Your task to perform on an android device: Clear all items from cart on target. Image 0: 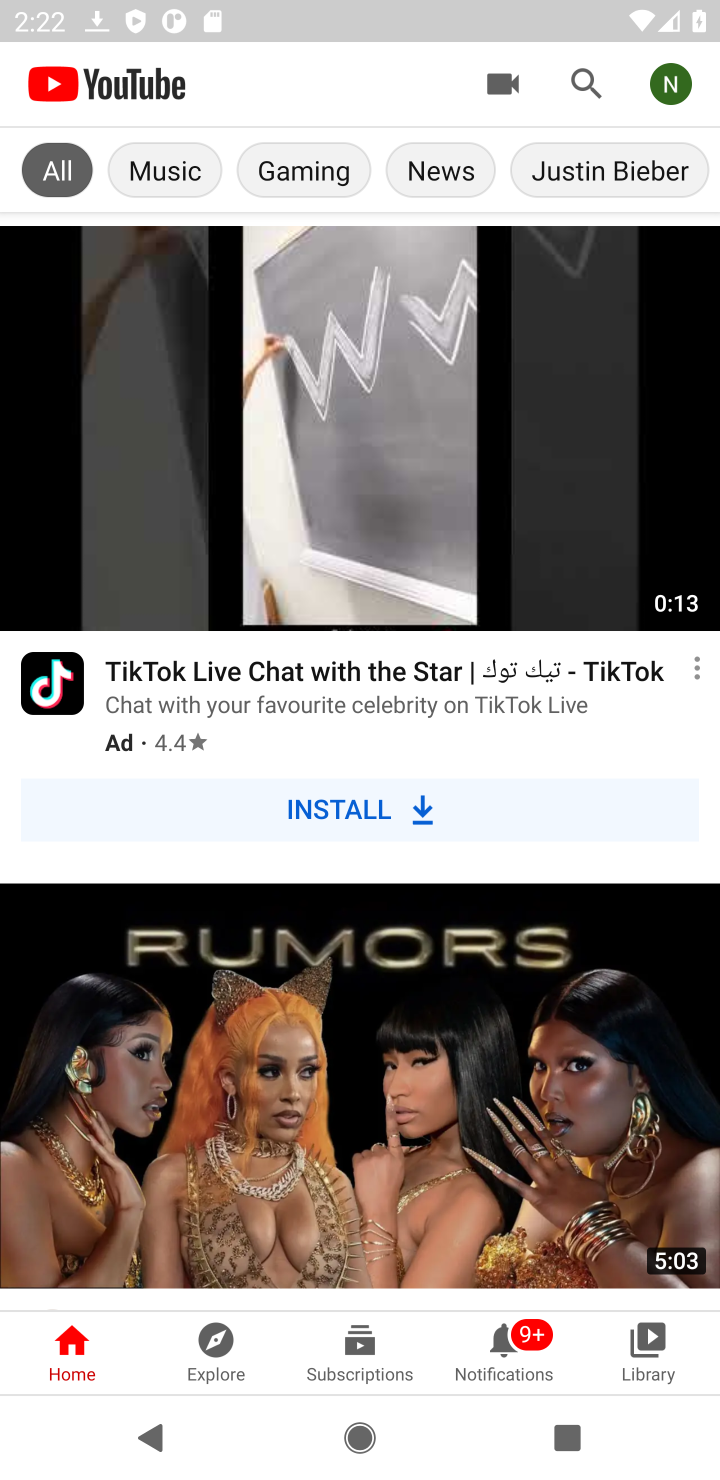
Step 0: press home button
Your task to perform on an android device: Clear all items from cart on target. Image 1: 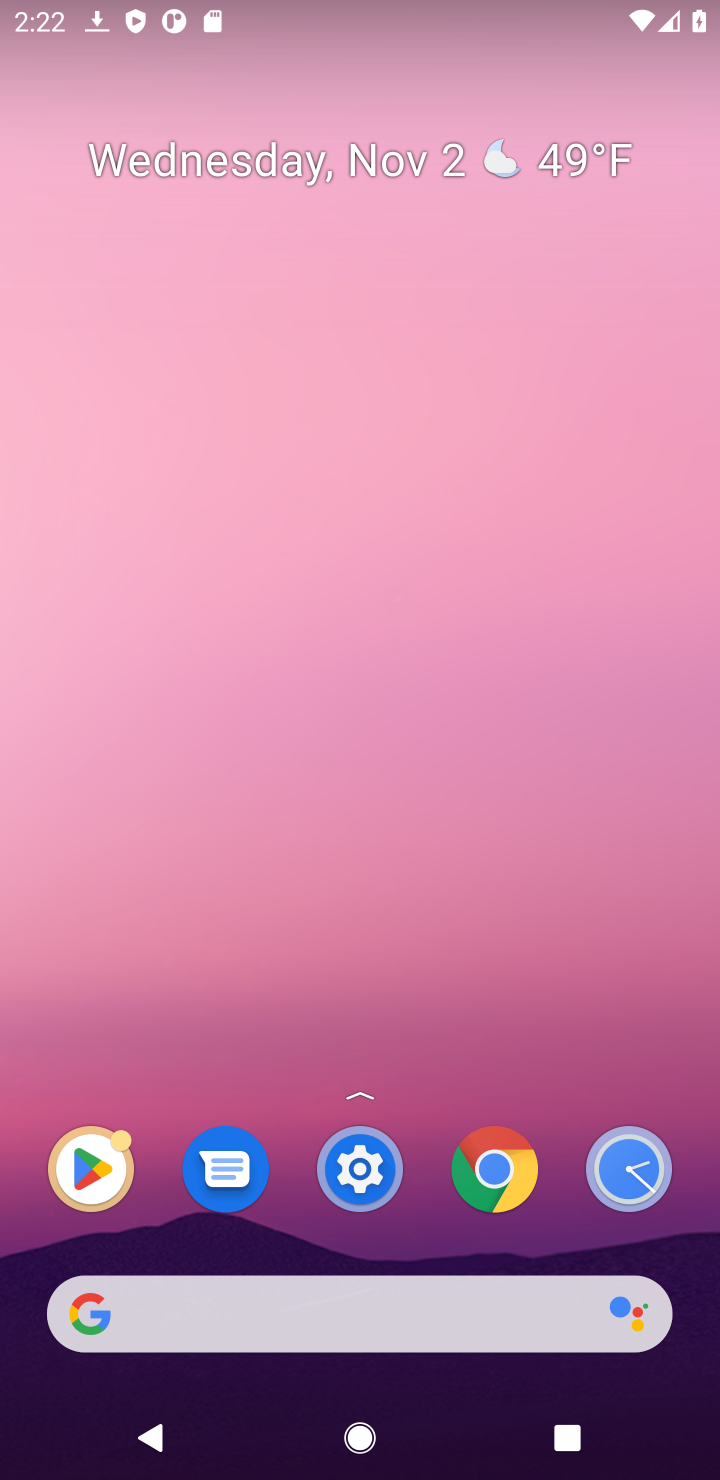
Step 1: drag from (345, 1000) to (352, 539)
Your task to perform on an android device: Clear all items from cart on target. Image 2: 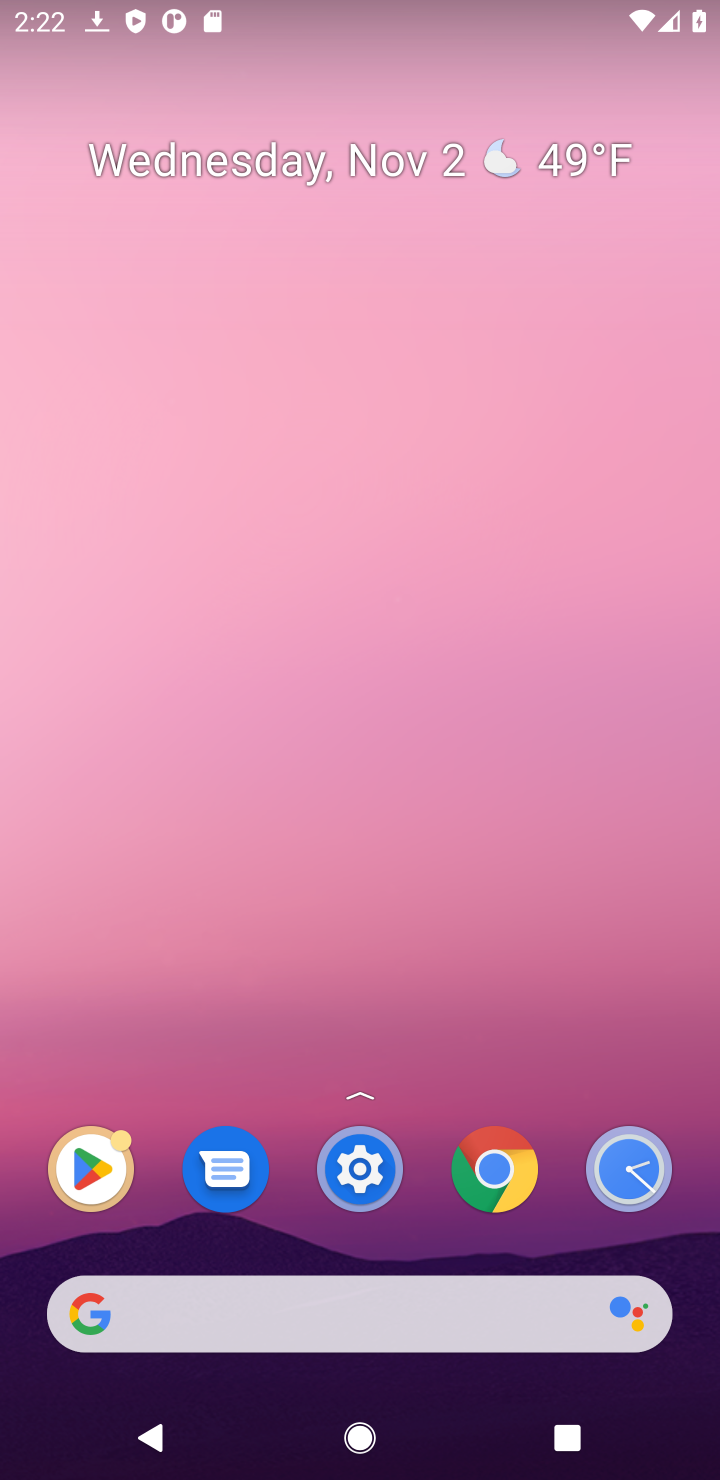
Step 2: drag from (381, 1254) to (367, 421)
Your task to perform on an android device: Clear all items from cart on target. Image 3: 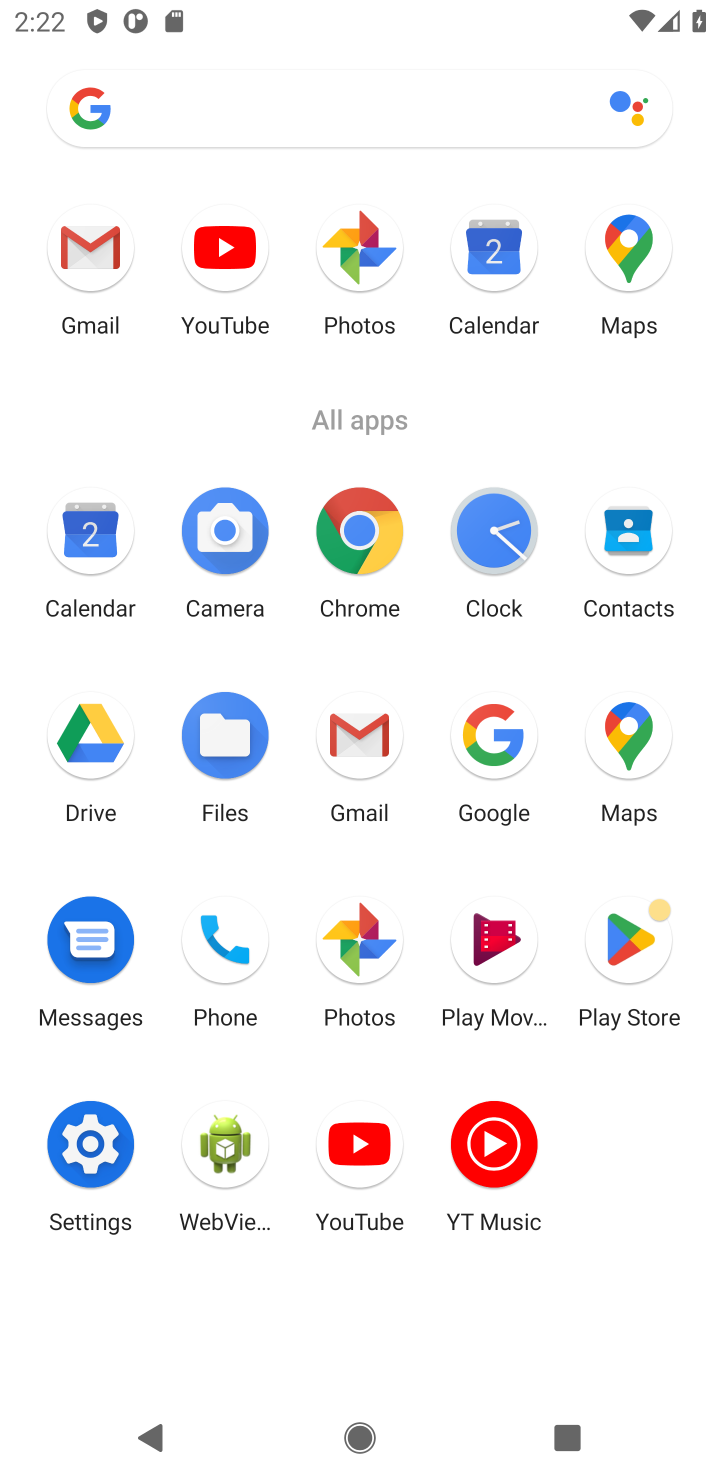
Step 3: click (475, 738)
Your task to perform on an android device: Clear all items from cart on target. Image 4: 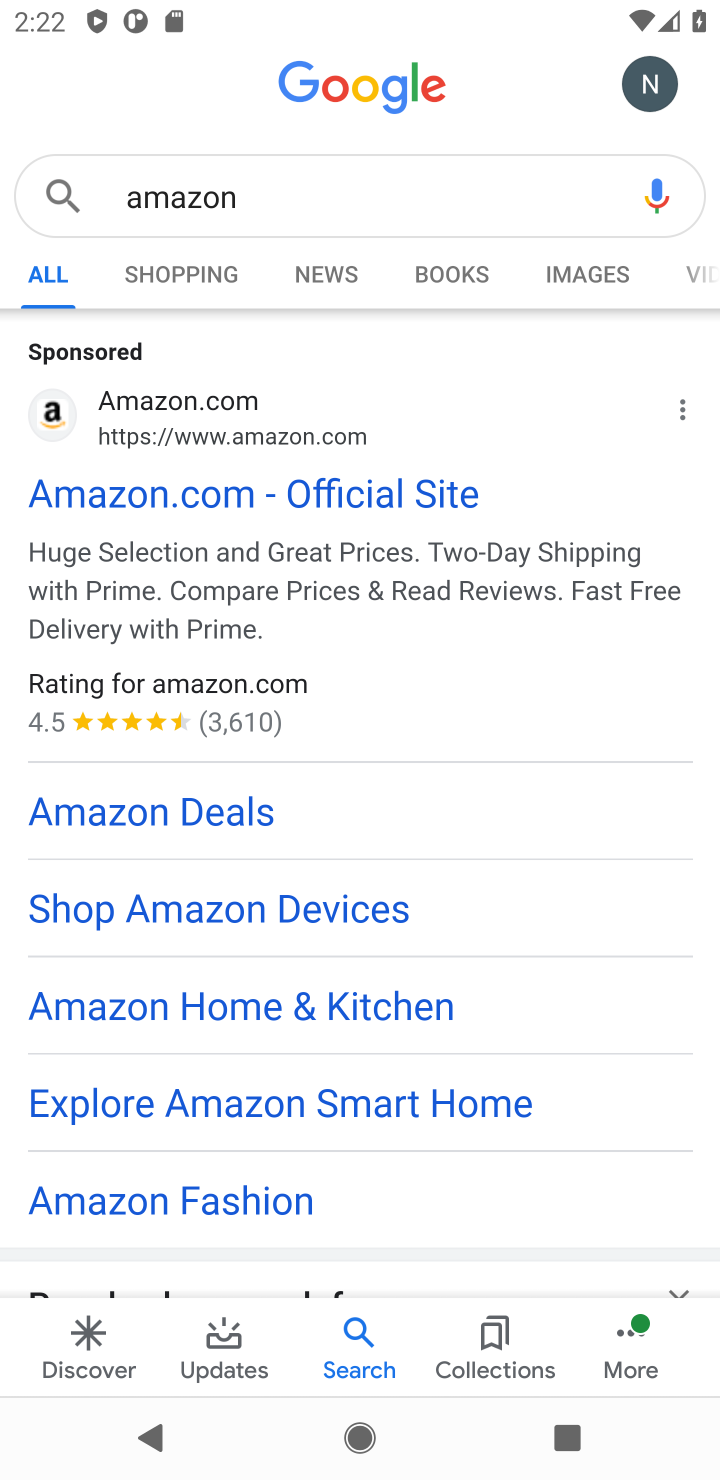
Step 4: click (178, 188)
Your task to perform on an android device: Clear all items from cart on target. Image 5: 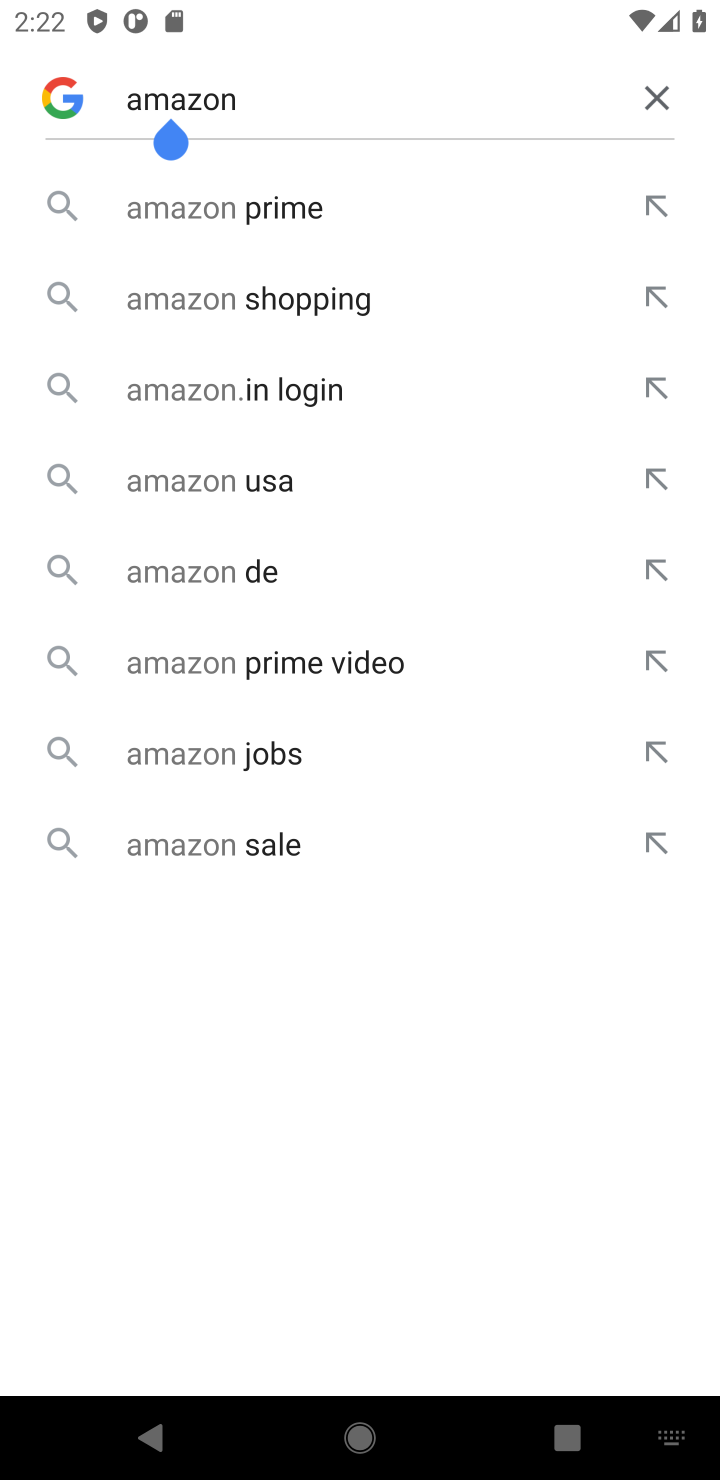
Step 5: click (661, 96)
Your task to perform on an android device: Clear all items from cart on target. Image 6: 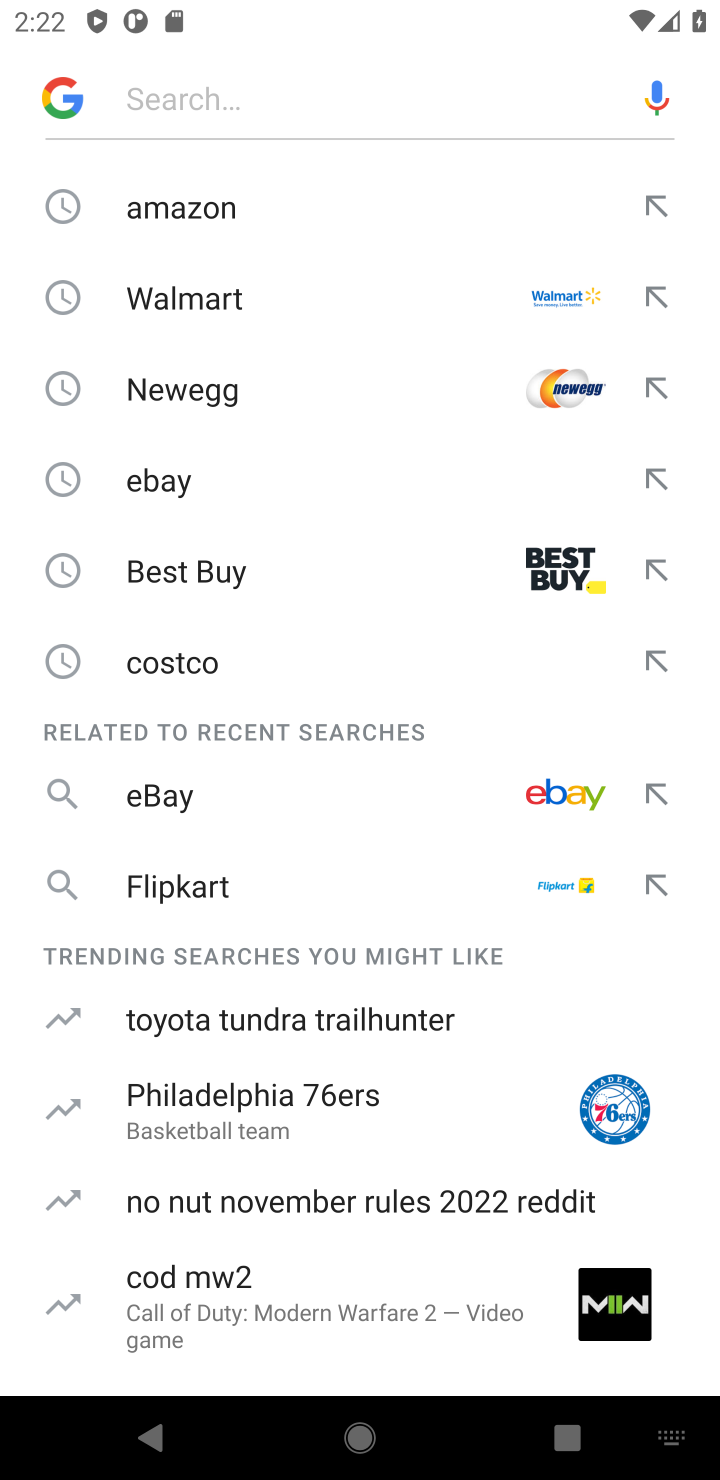
Step 6: type "target"
Your task to perform on an android device: Clear all items from cart on target. Image 7: 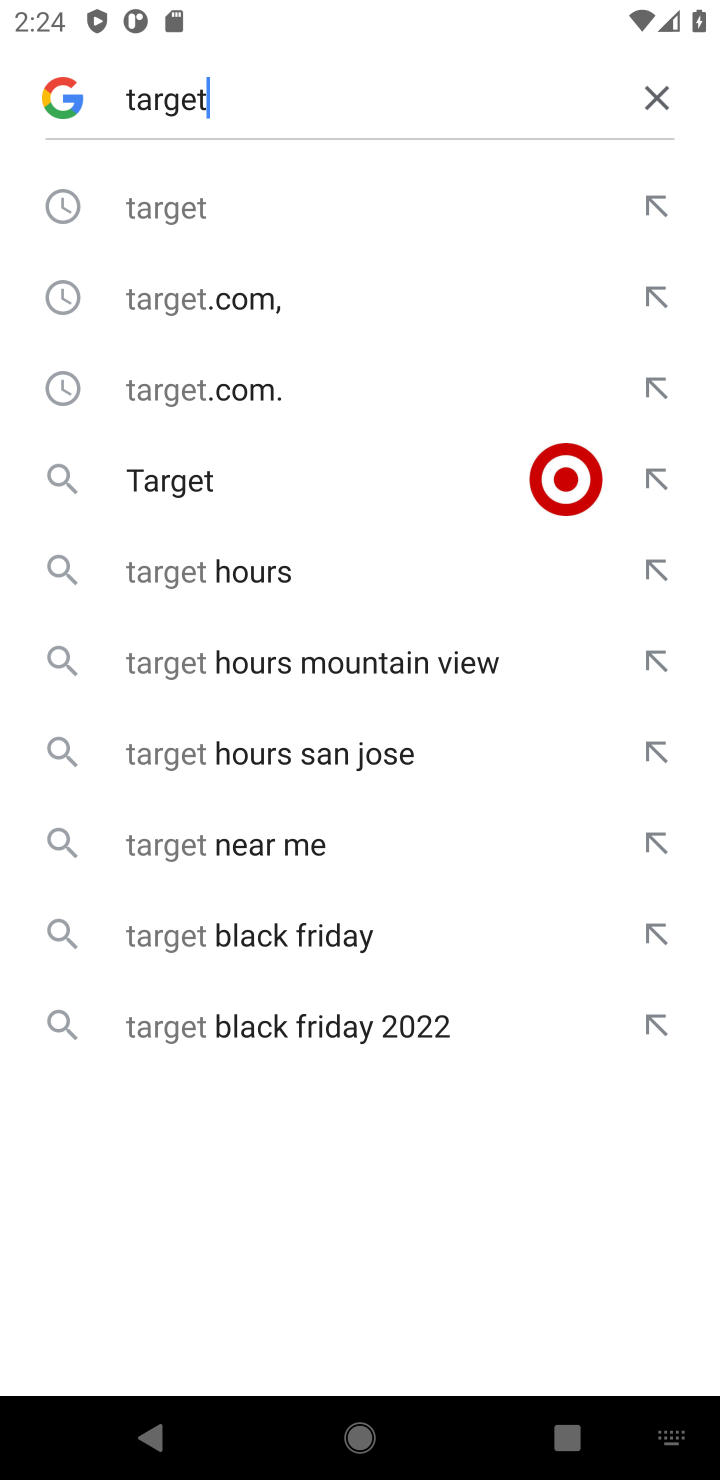
Step 7: click (183, 211)
Your task to perform on an android device: Clear all items from cart on target. Image 8: 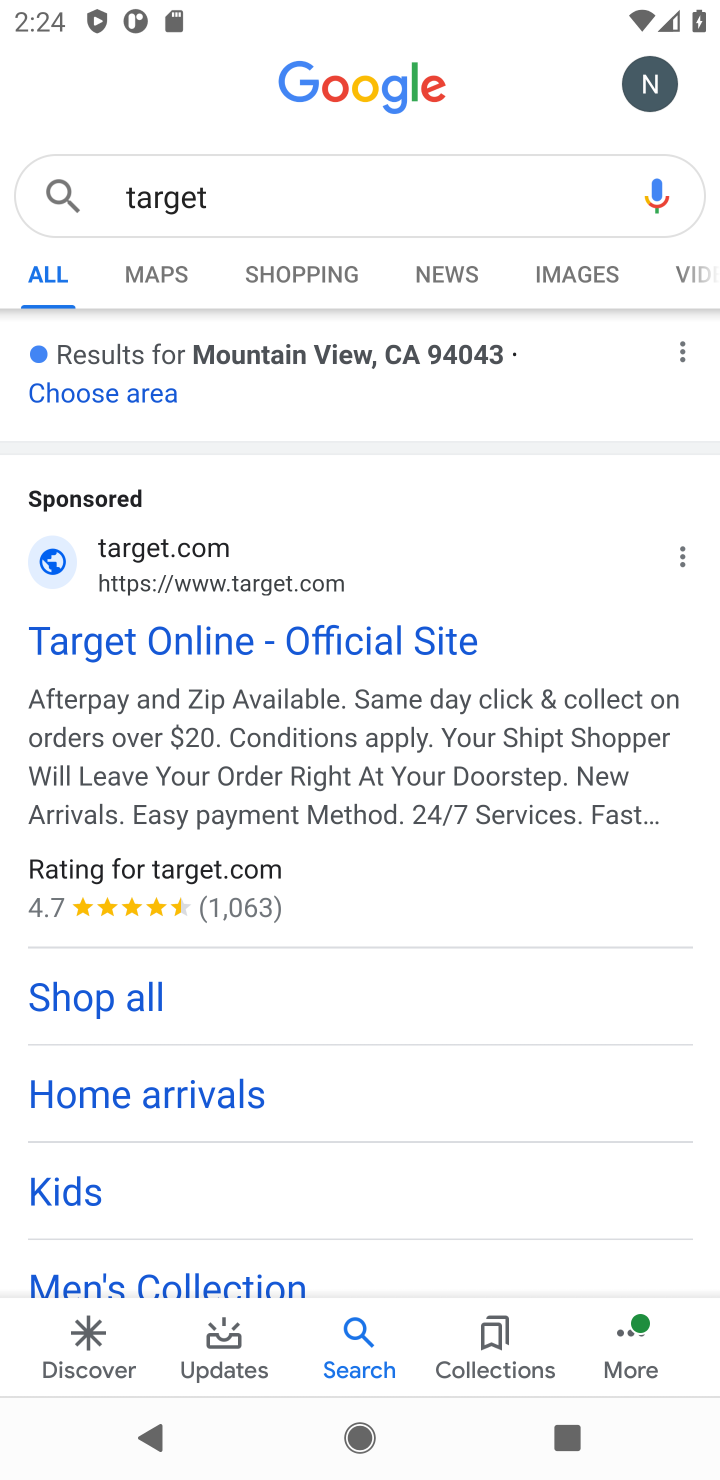
Step 8: click (183, 633)
Your task to perform on an android device: Clear all items from cart on target. Image 9: 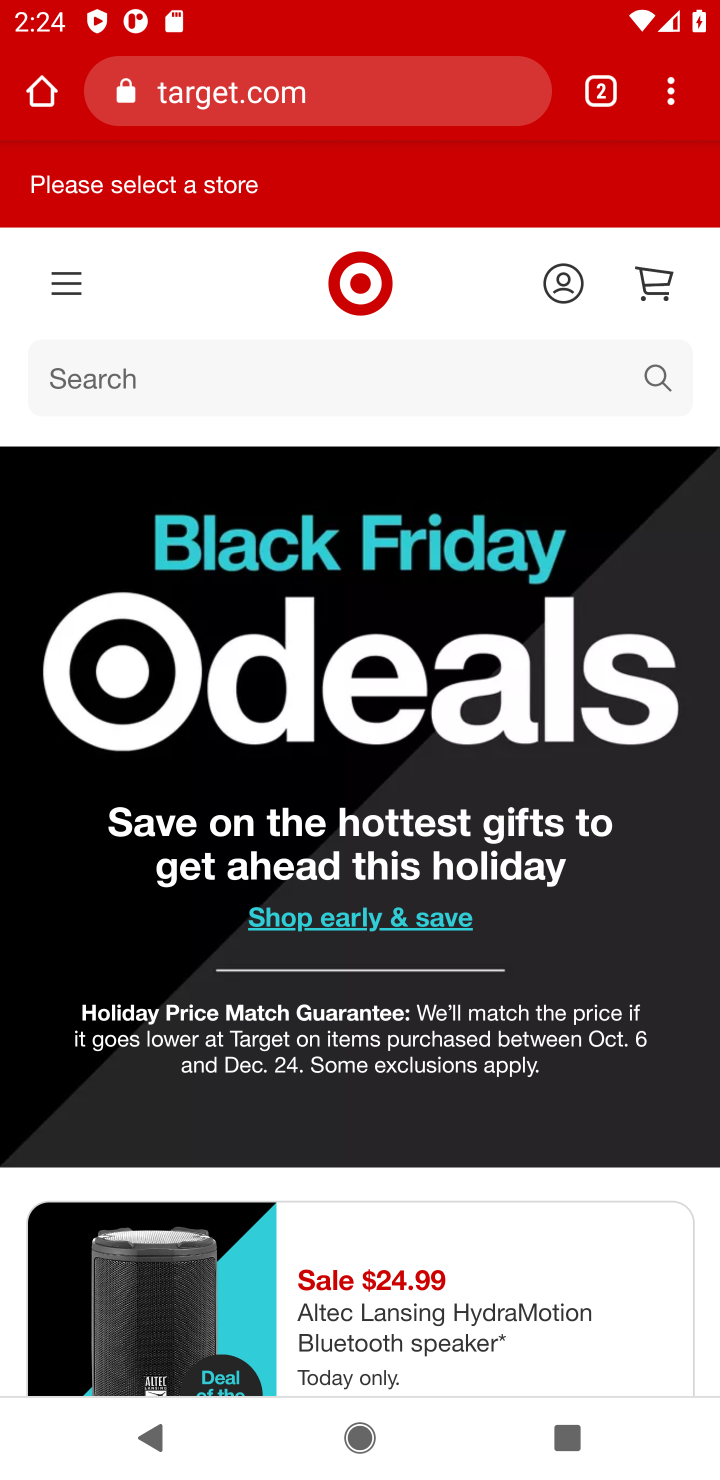
Step 9: task complete